Your task to perform on an android device: Go to Android settings Image 0: 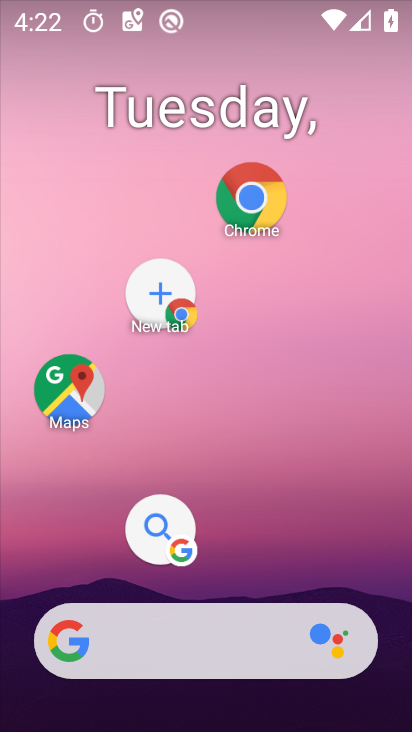
Step 0: drag from (241, 600) to (241, 141)
Your task to perform on an android device: Go to Android settings Image 1: 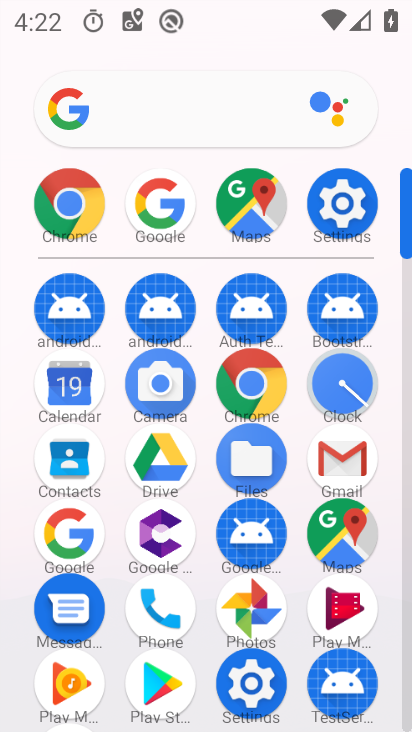
Step 1: click (363, 207)
Your task to perform on an android device: Go to Android settings Image 2: 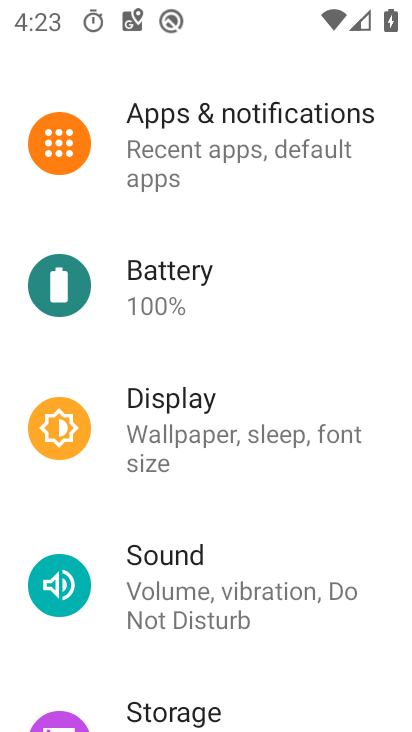
Step 2: task complete